Your task to perform on an android device: Search for Italian restaurants on Maps Image 0: 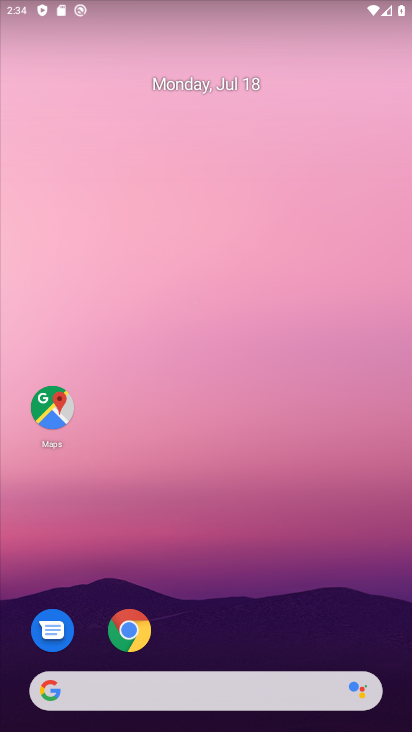
Step 0: drag from (219, 618) to (322, 91)
Your task to perform on an android device: Search for Italian restaurants on Maps Image 1: 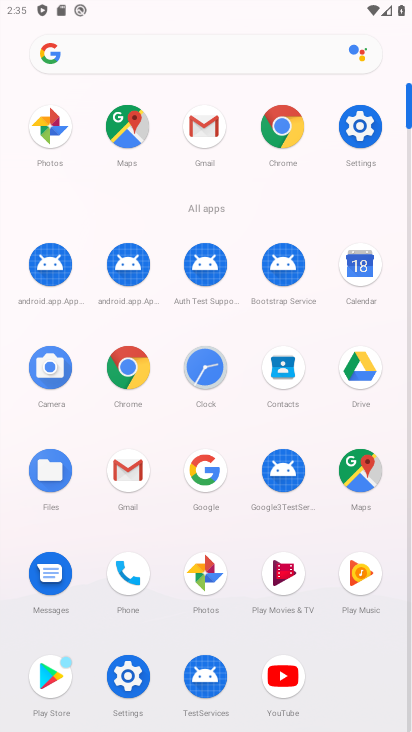
Step 1: click (372, 472)
Your task to perform on an android device: Search for Italian restaurants on Maps Image 2: 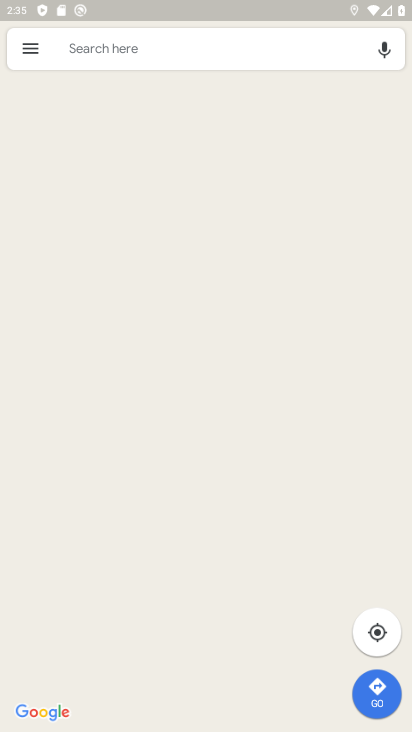
Step 2: click (141, 66)
Your task to perform on an android device: Search for Italian restaurants on Maps Image 3: 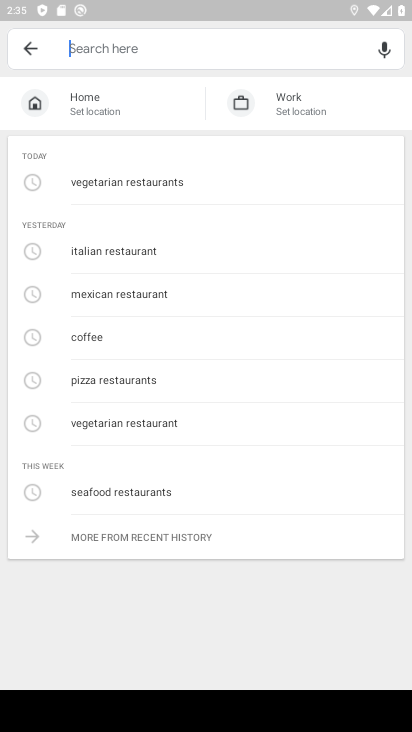
Step 3: type "Italian restaurants"
Your task to perform on an android device: Search for Italian restaurants on Maps Image 4: 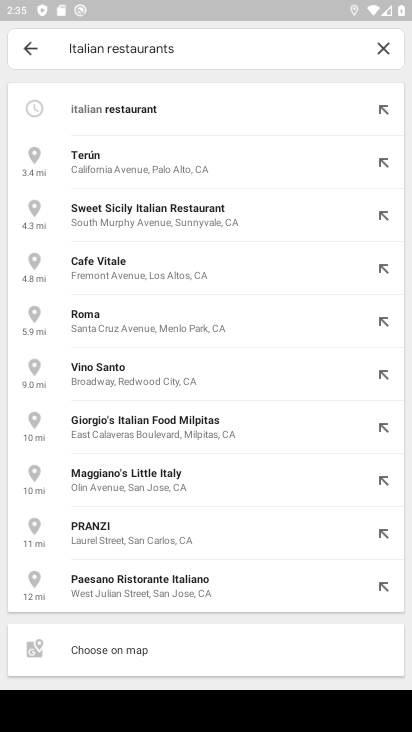
Step 4: click (205, 129)
Your task to perform on an android device: Search for Italian restaurants on Maps Image 5: 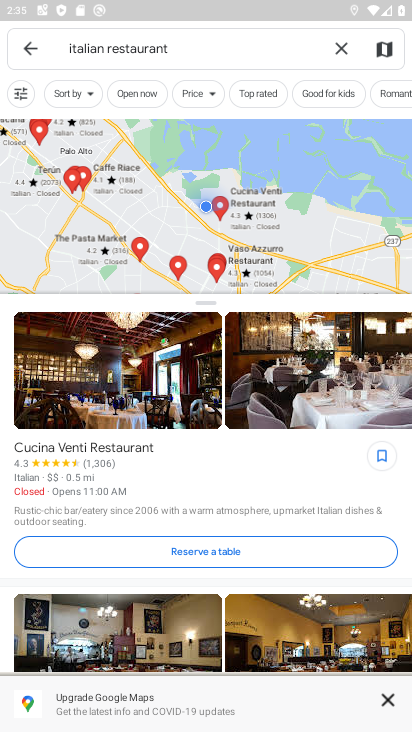
Step 5: click (388, 703)
Your task to perform on an android device: Search for Italian restaurants on Maps Image 6: 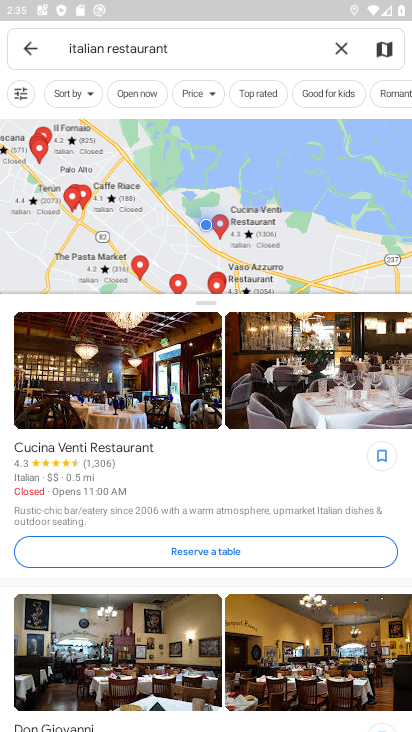
Step 6: task complete